Your task to perform on an android device: toggle javascript in the chrome app Image 0: 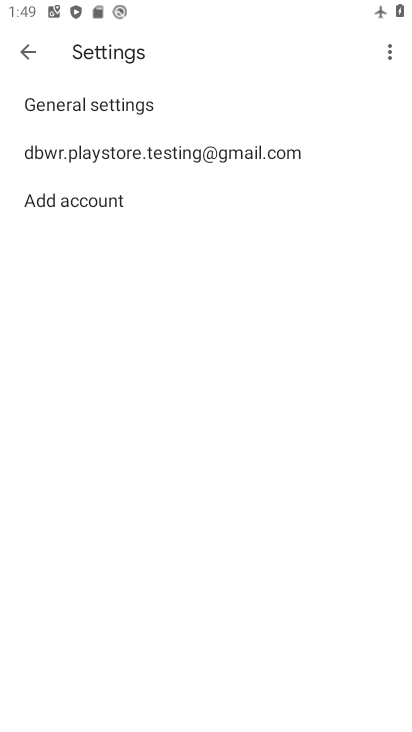
Step 0: press home button
Your task to perform on an android device: toggle javascript in the chrome app Image 1: 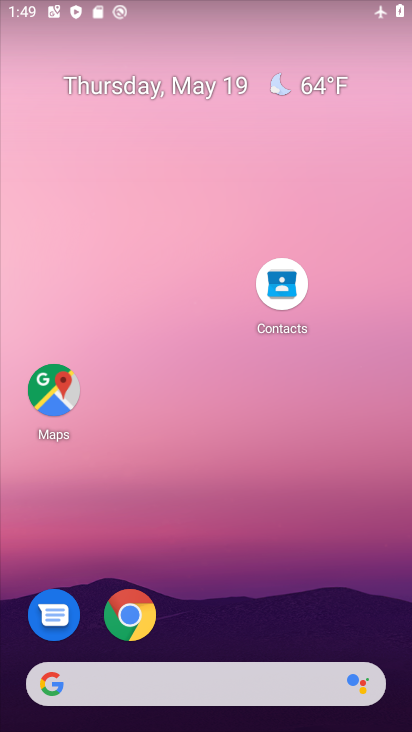
Step 1: drag from (230, 535) to (249, 131)
Your task to perform on an android device: toggle javascript in the chrome app Image 2: 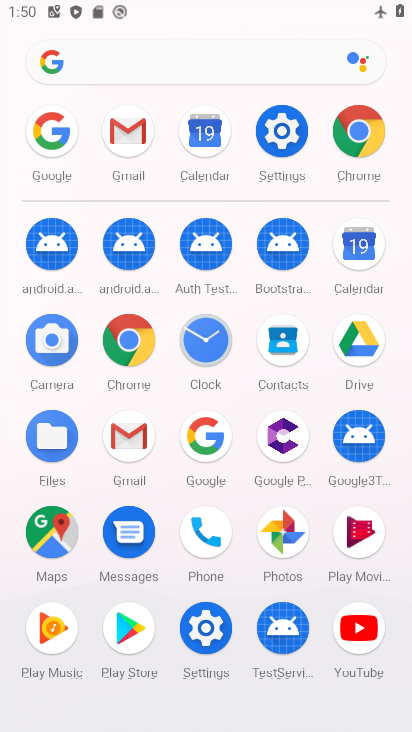
Step 2: click (355, 165)
Your task to perform on an android device: toggle javascript in the chrome app Image 3: 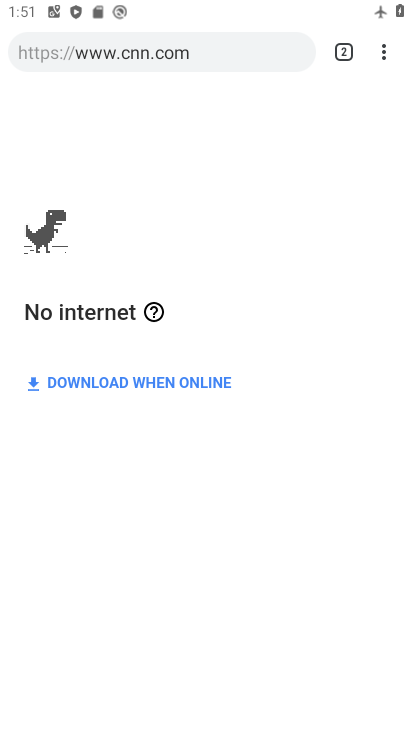
Step 3: click (388, 50)
Your task to perform on an android device: toggle javascript in the chrome app Image 4: 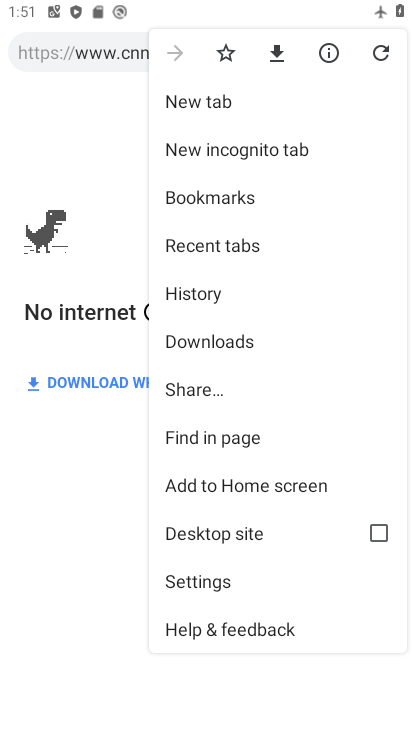
Step 4: click (242, 582)
Your task to perform on an android device: toggle javascript in the chrome app Image 5: 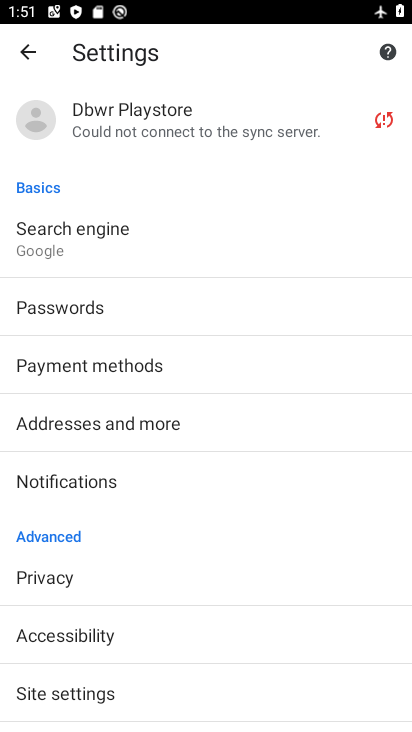
Step 5: drag from (205, 663) to (247, 273)
Your task to perform on an android device: toggle javascript in the chrome app Image 6: 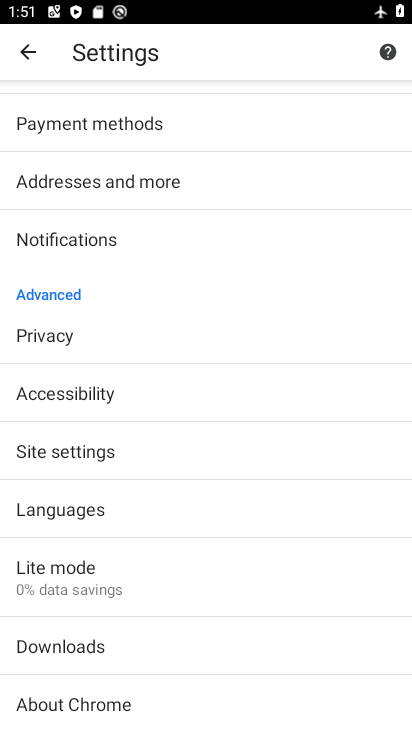
Step 6: click (130, 448)
Your task to perform on an android device: toggle javascript in the chrome app Image 7: 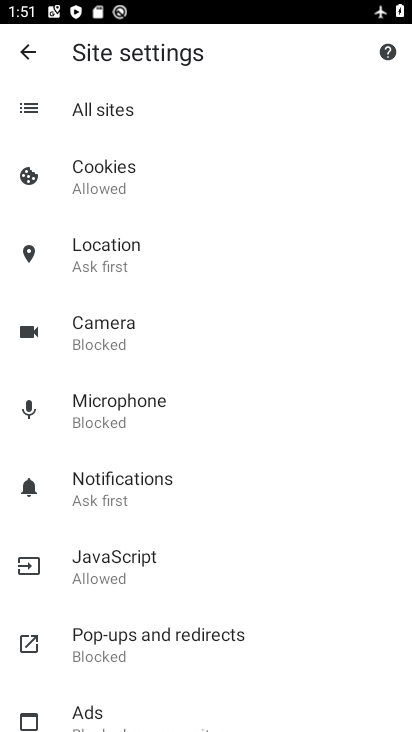
Step 7: click (163, 568)
Your task to perform on an android device: toggle javascript in the chrome app Image 8: 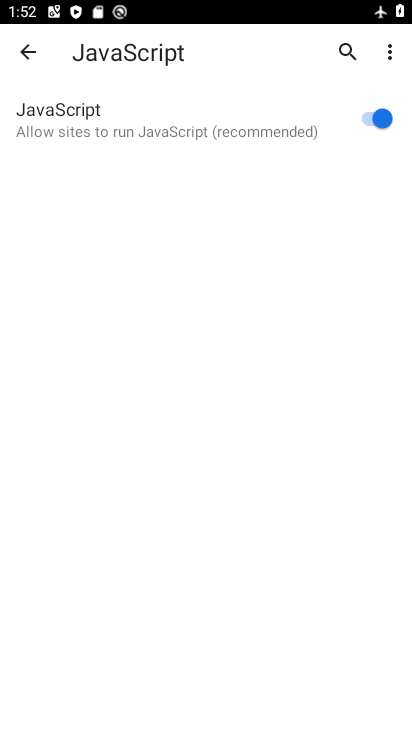
Step 8: click (349, 118)
Your task to perform on an android device: toggle javascript in the chrome app Image 9: 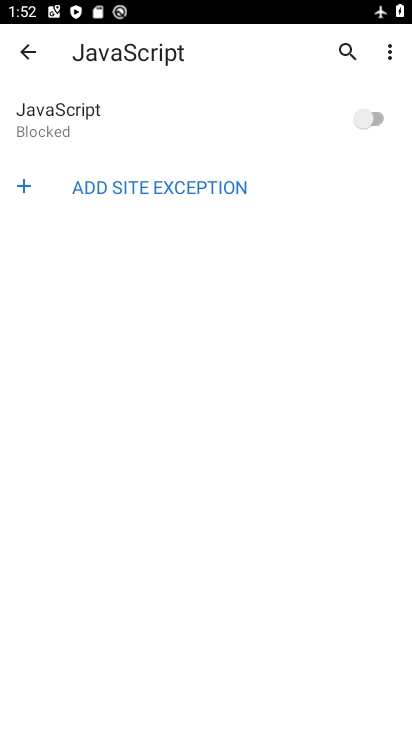
Step 9: task complete